Your task to perform on an android device: read, delete, or share a saved page in the chrome app Image 0: 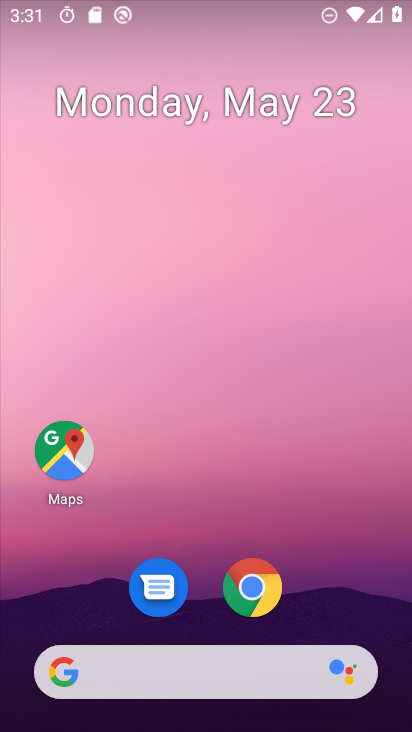
Step 0: drag from (208, 621) to (0, 532)
Your task to perform on an android device: read, delete, or share a saved page in the chrome app Image 1: 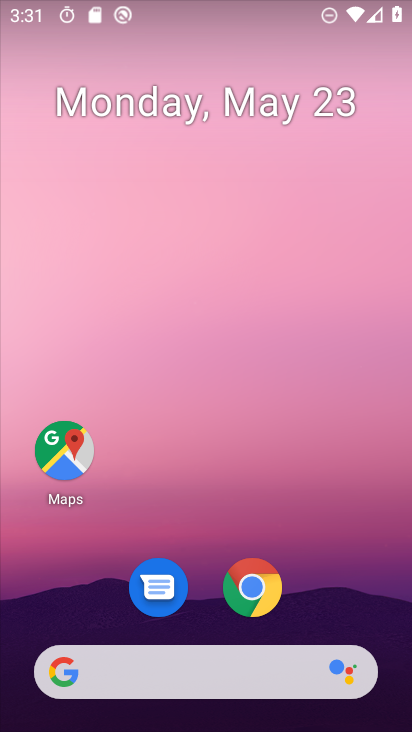
Step 1: click (281, 584)
Your task to perform on an android device: read, delete, or share a saved page in the chrome app Image 2: 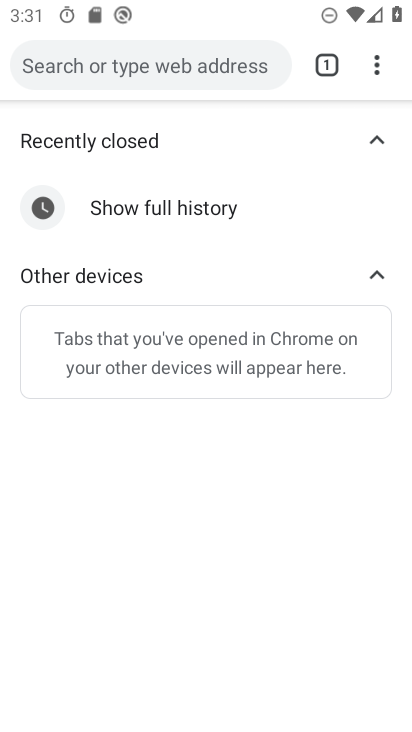
Step 2: click (366, 63)
Your task to perform on an android device: read, delete, or share a saved page in the chrome app Image 3: 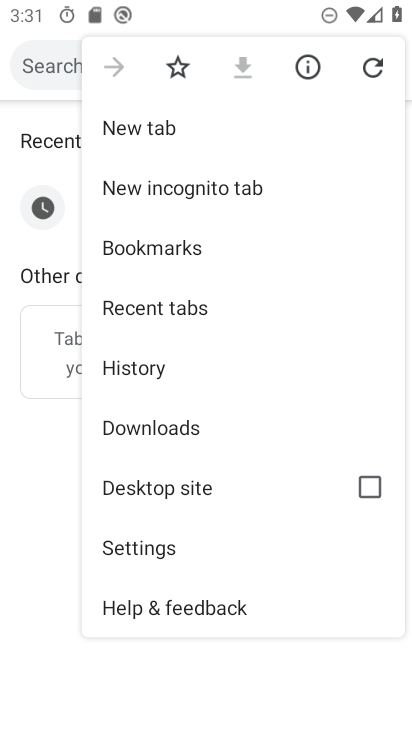
Step 3: click (159, 437)
Your task to perform on an android device: read, delete, or share a saved page in the chrome app Image 4: 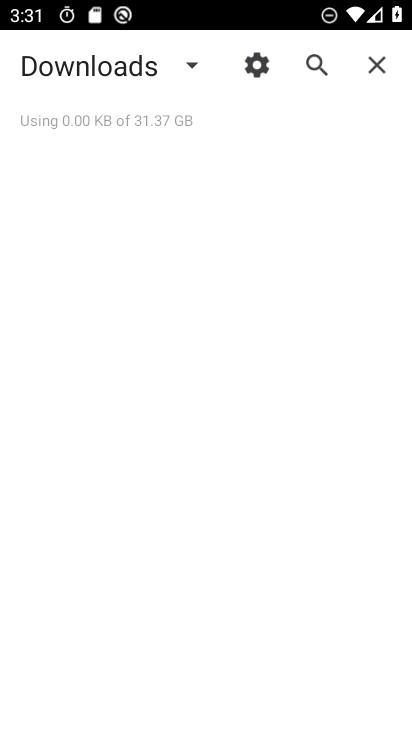
Step 4: task complete